Your task to perform on an android device: Open the calendar and show me this week's events? Image 0: 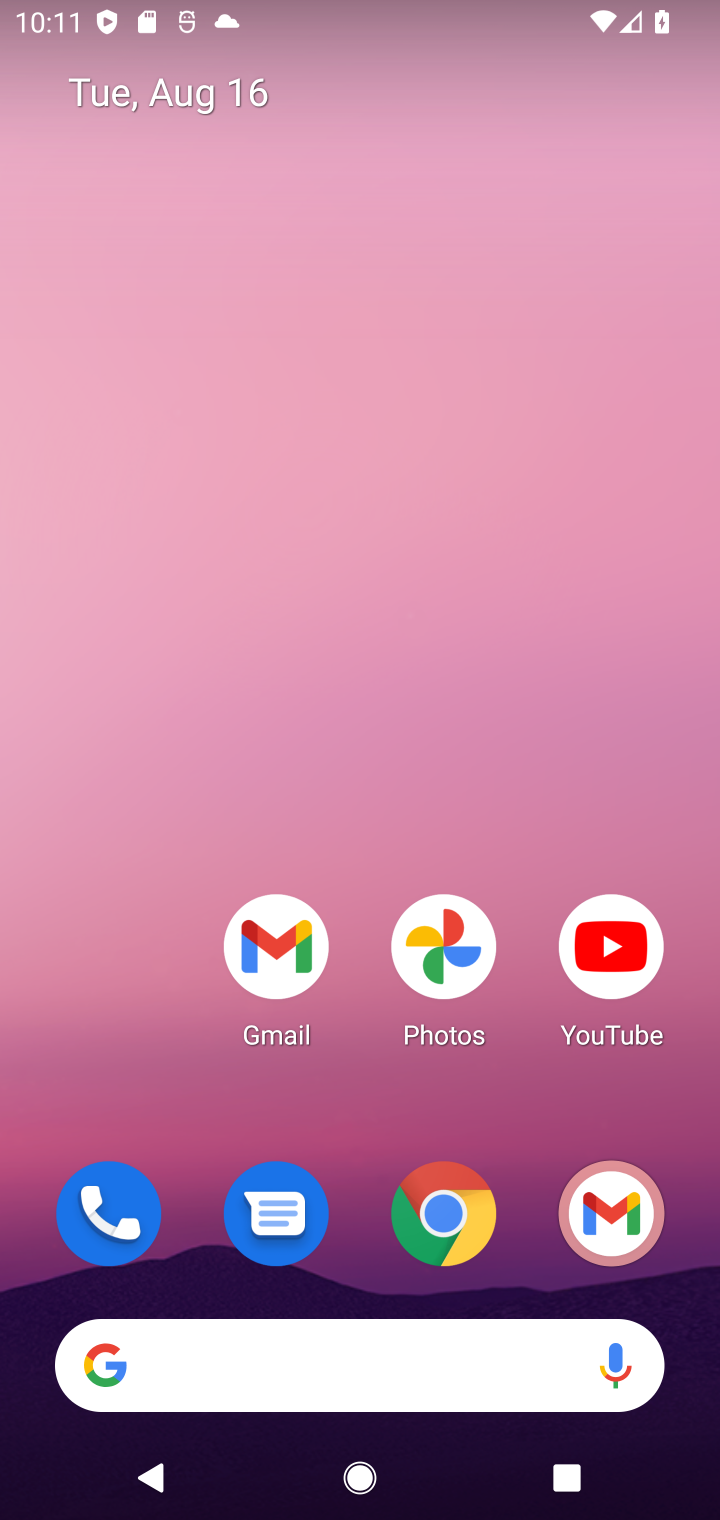
Step 0: drag from (348, 1049) to (348, 51)
Your task to perform on an android device: Open the calendar and show me this week's events? Image 1: 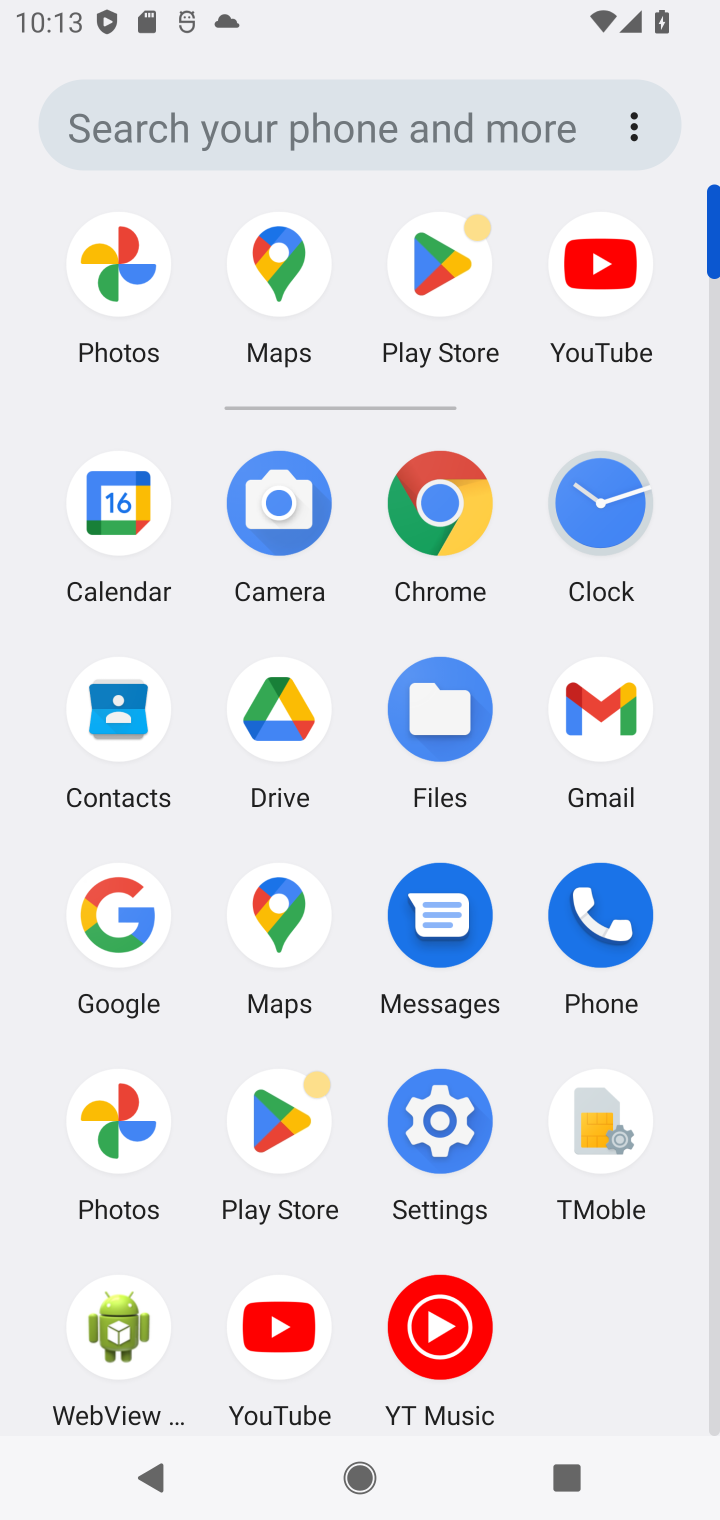
Step 1: click (109, 504)
Your task to perform on an android device: Open the calendar and show me this week's events? Image 2: 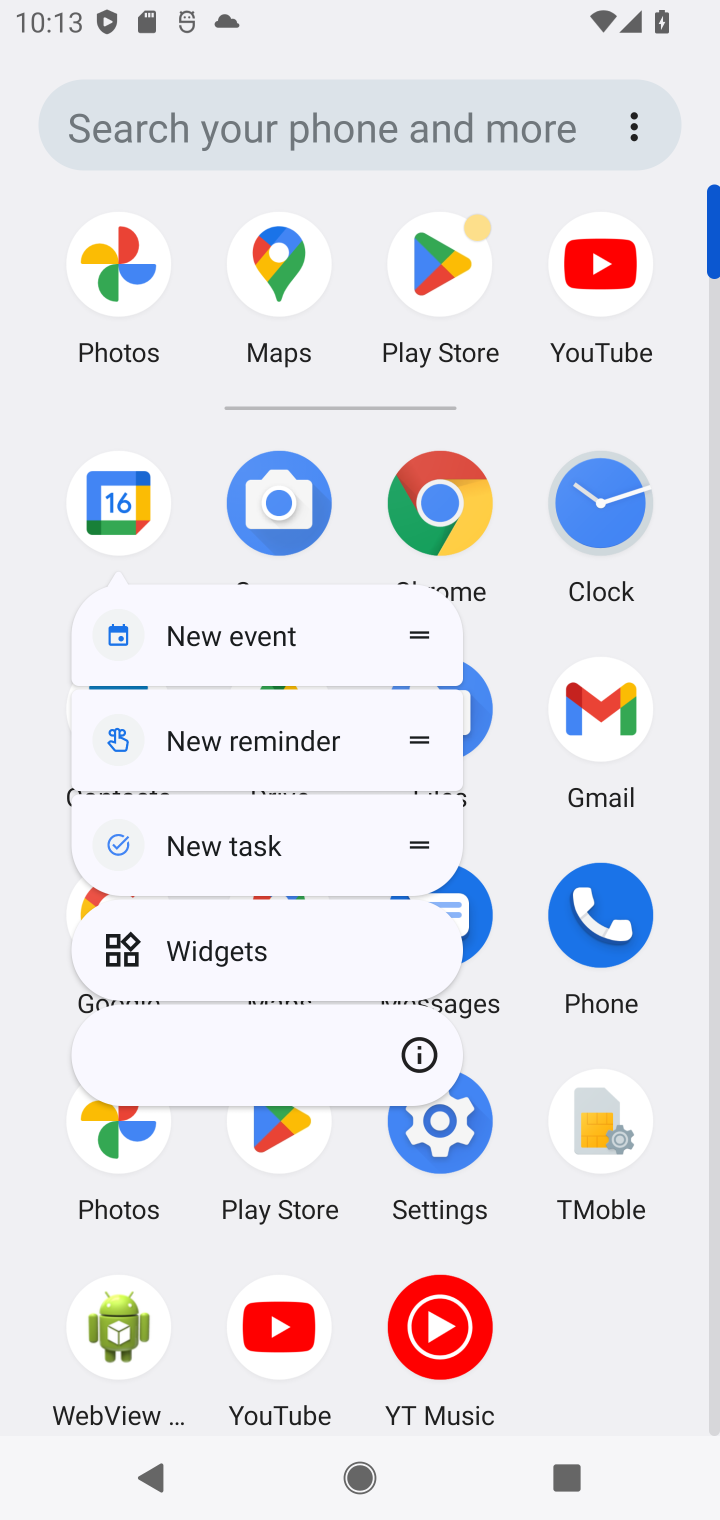
Step 2: click (109, 504)
Your task to perform on an android device: Open the calendar and show me this week's events? Image 3: 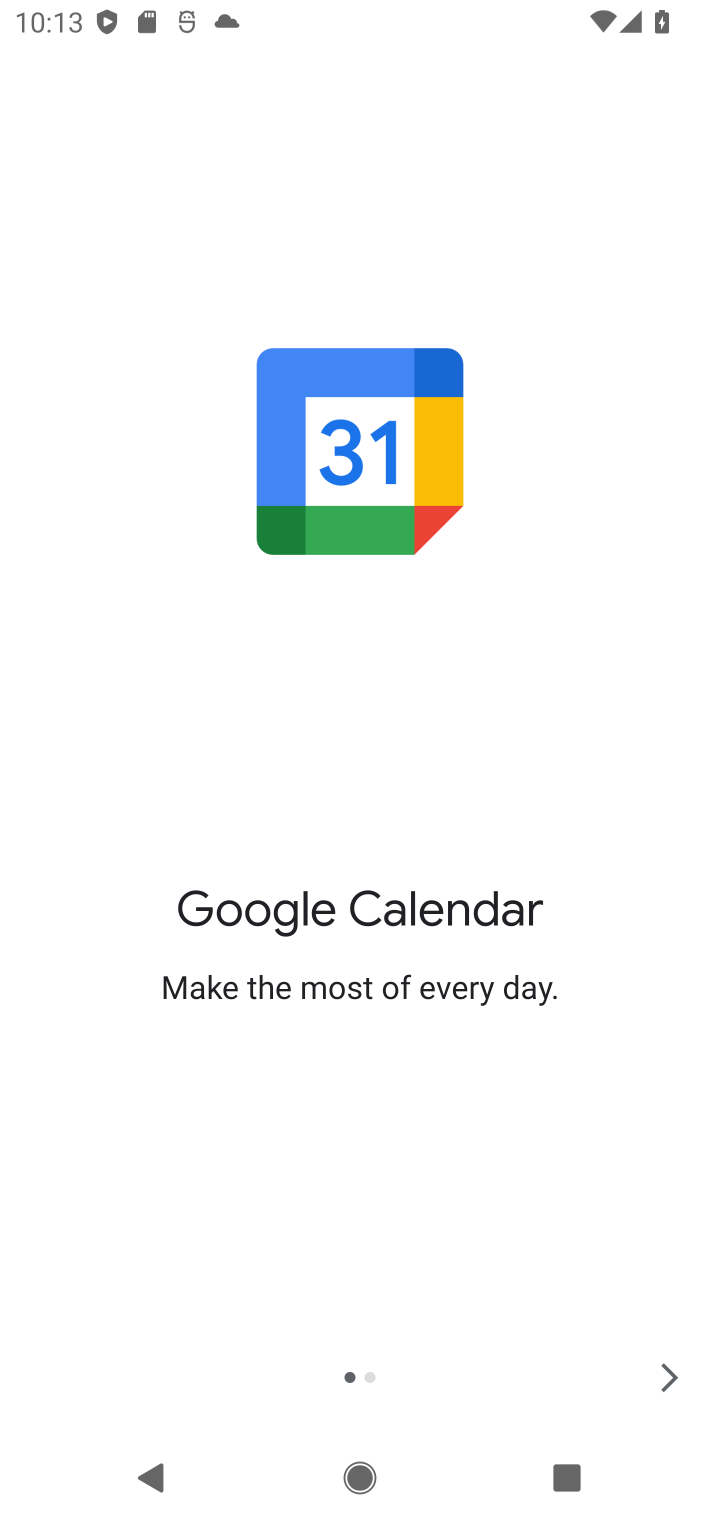
Step 3: click (645, 1370)
Your task to perform on an android device: Open the calendar and show me this week's events? Image 4: 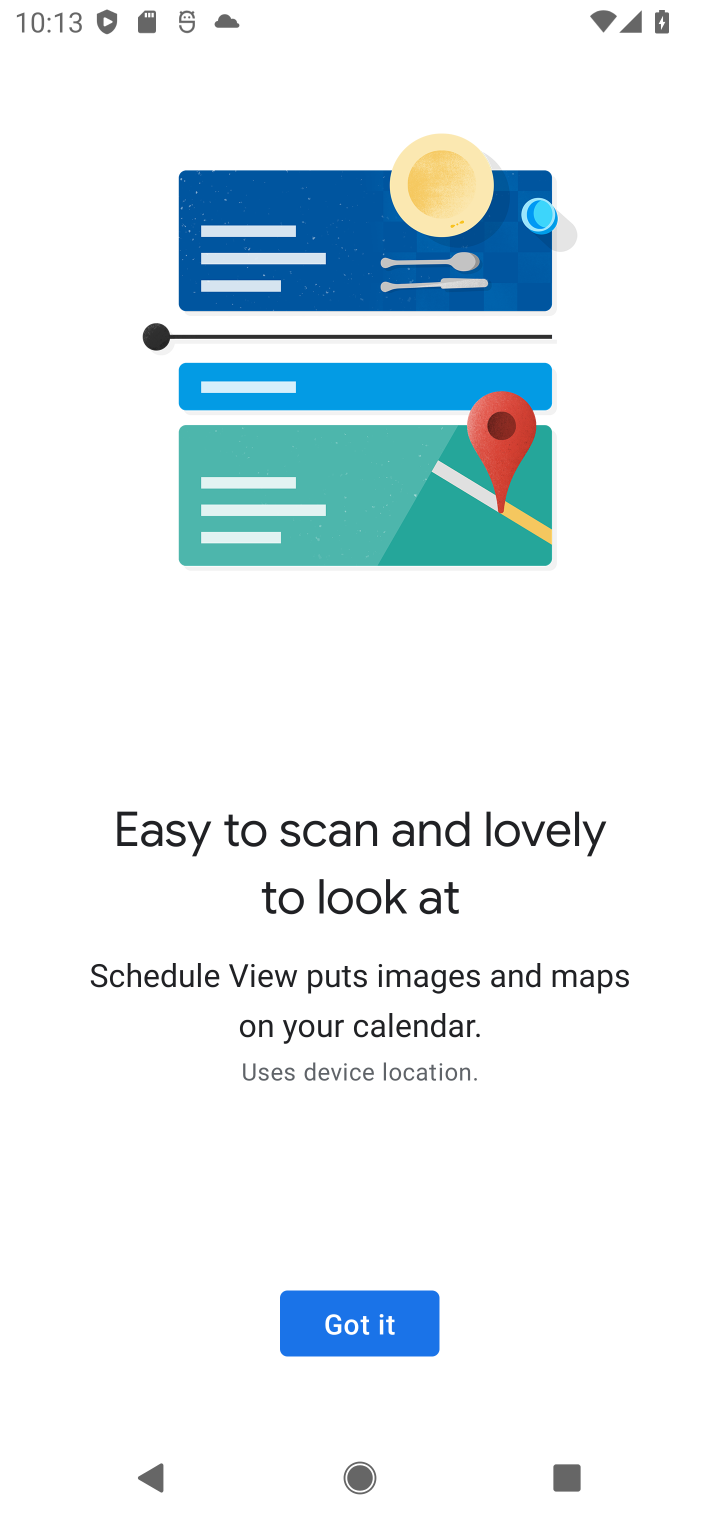
Step 4: click (655, 1364)
Your task to perform on an android device: Open the calendar and show me this week's events? Image 5: 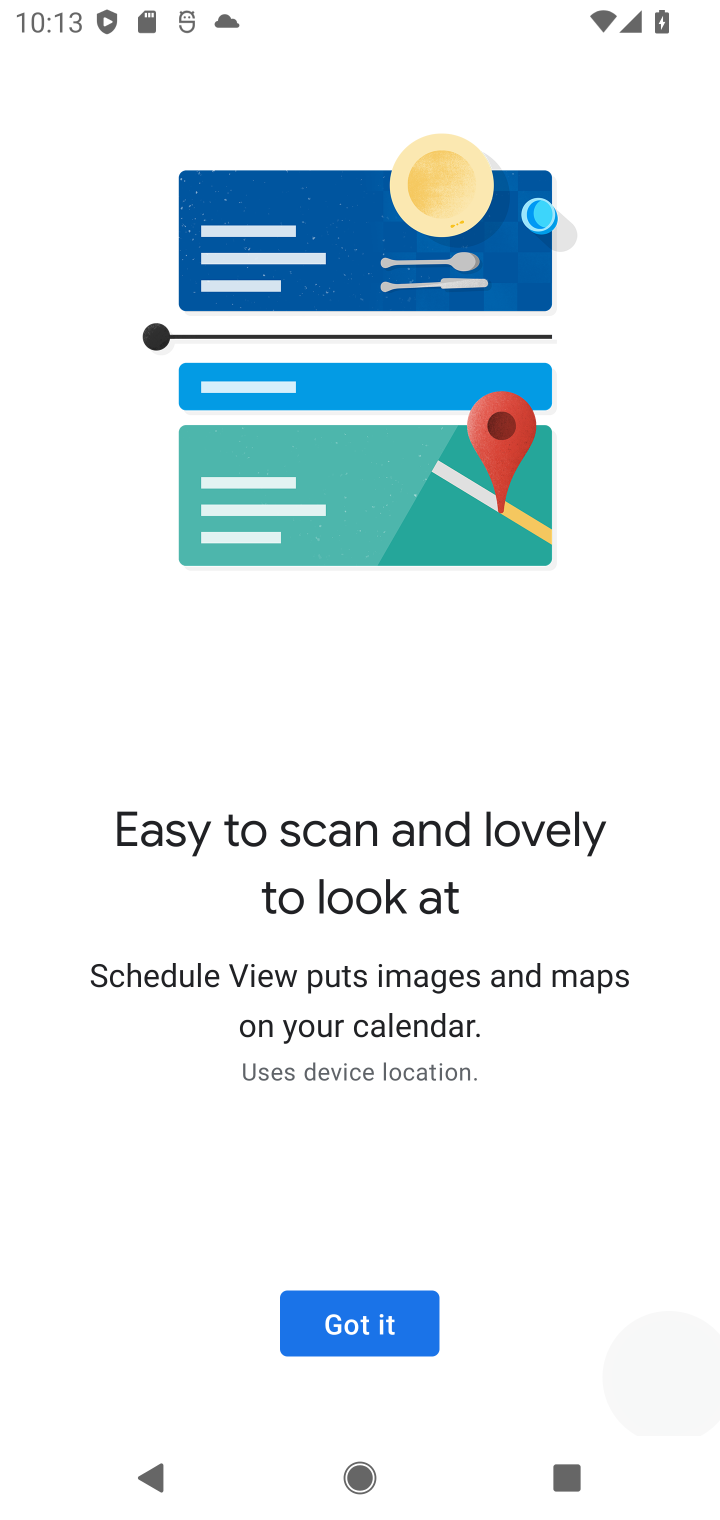
Step 5: click (343, 1316)
Your task to perform on an android device: Open the calendar and show me this week's events? Image 6: 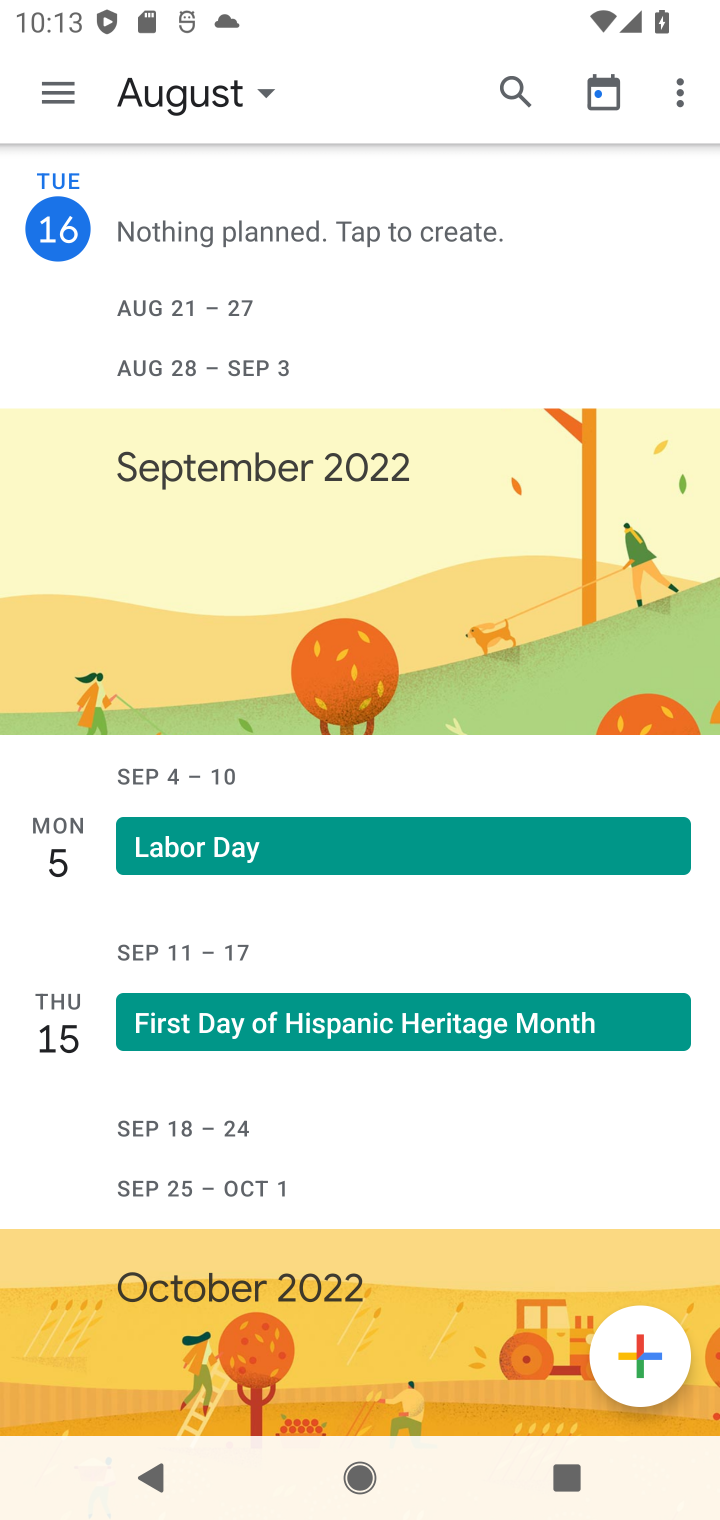
Step 6: click (65, 83)
Your task to perform on an android device: Open the calendar and show me this week's events? Image 7: 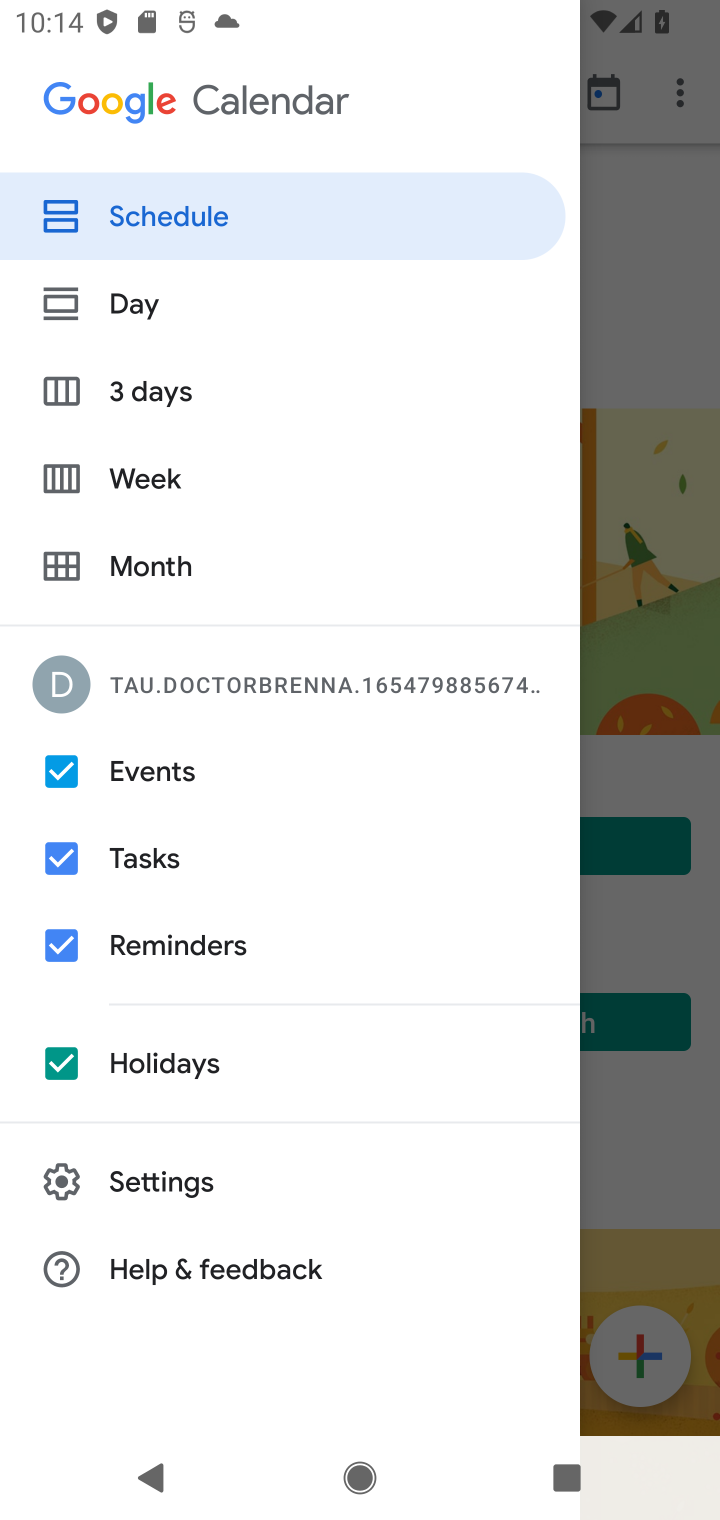
Step 7: click (187, 501)
Your task to perform on an android device: Open the calendar and show me this week's events? Image 8: 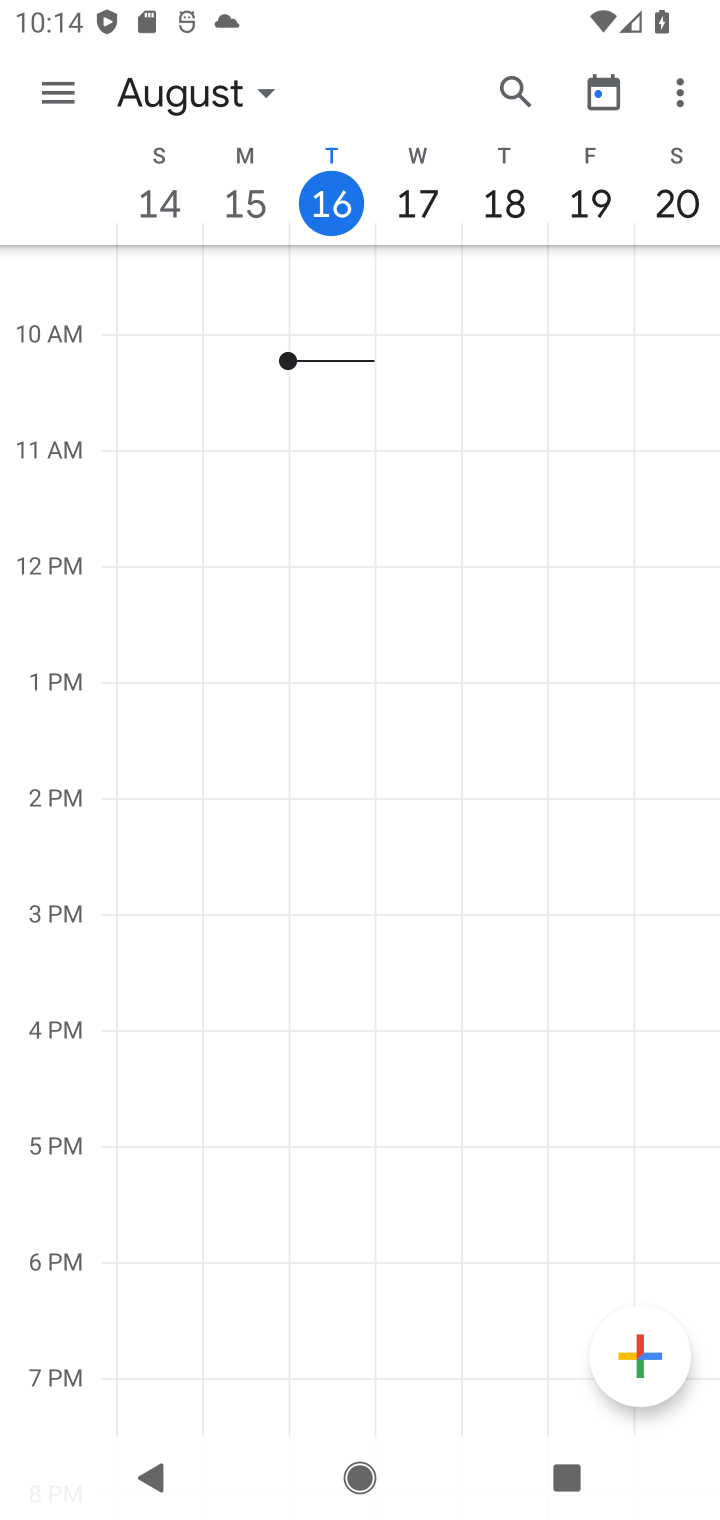
Step 8: task complete